Your task to perform on an android device: Open Android settings Image 0: 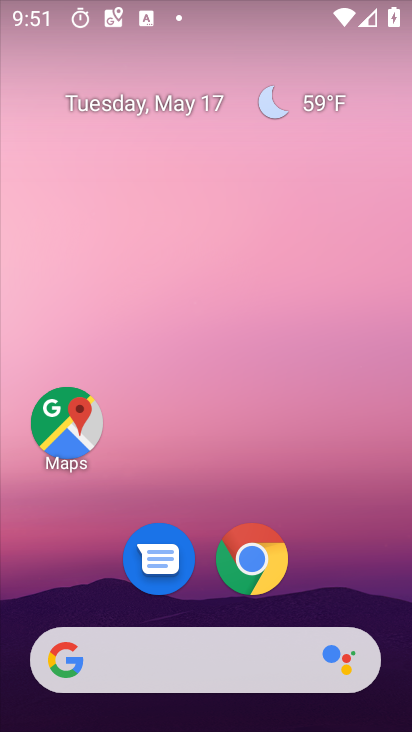
Step 0: drag from (273, 655) to (313, 122)
Your task to perform on an android device: Open Android settings Image 1: 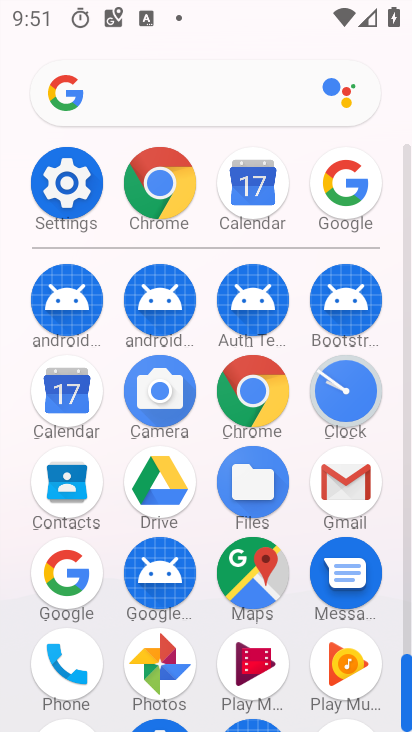
Step 1: click (81, 196)
Your task to perform on an android device: Open Android settings Image 2: 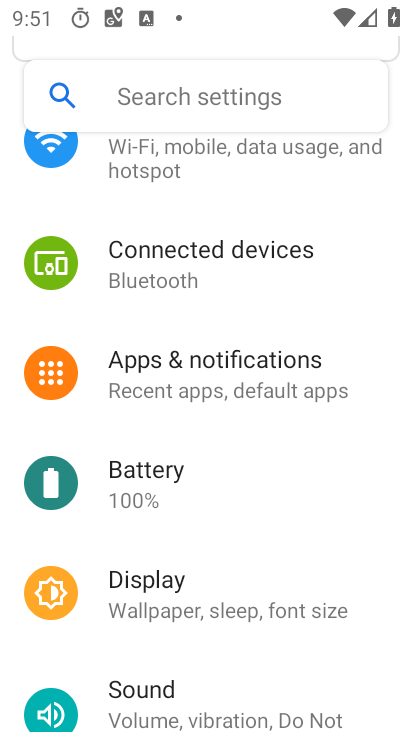
Step 2: drag from (253, 611) to (292, 403)
Your task to perform on an android device: Open Android settings Image 3: 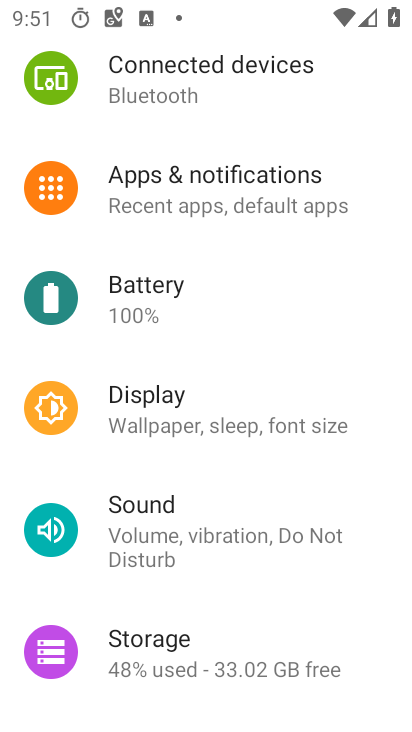
Step 3: drag from (182, 578) to (262, 236)
Your task to perform on an android device: Open Android settings Image 4: 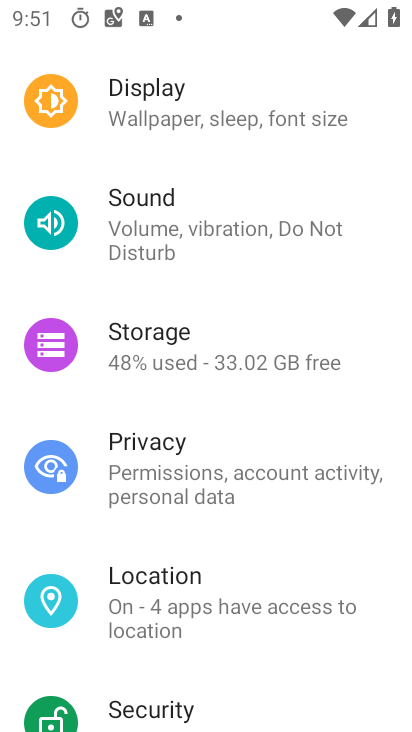
Step 4: drag from (197, 576) to (324, 115)
Your task to perform on an android device: Open Android settings Image 5: 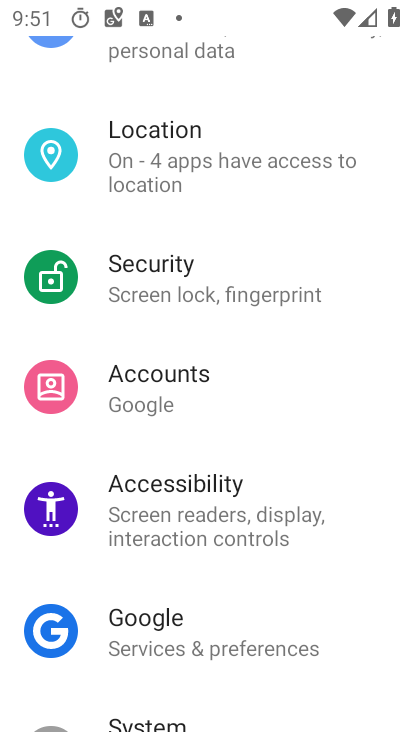
Step 5: drag from (229, 639) to (296, 116)
Your task to perform on an android device: Open Android settings Image 6: 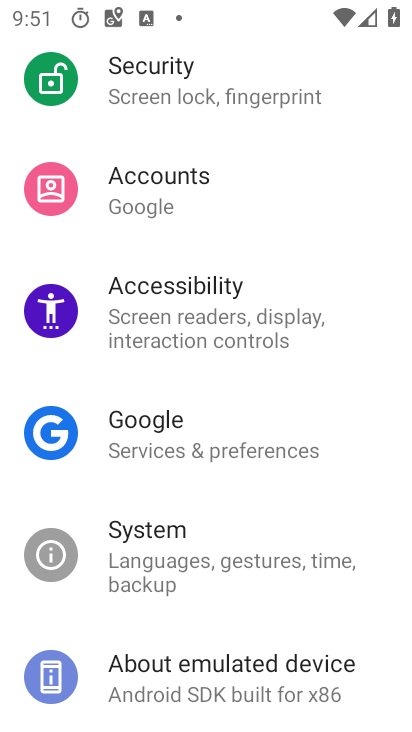
Step 6: click (176, 680)
Your task to perform on an android device: Open Android settings Image 7: 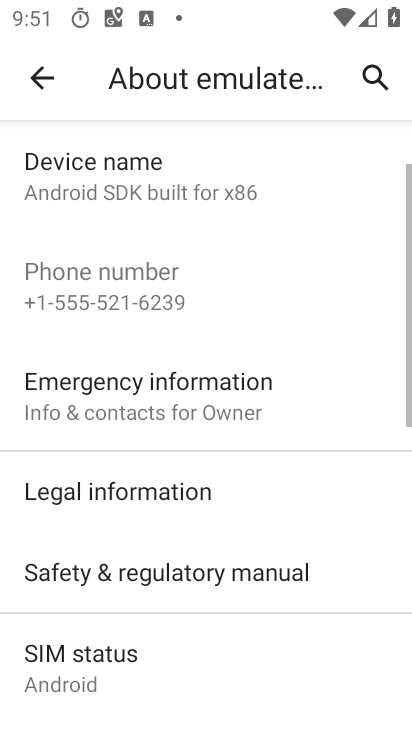
Step 7: task complete